Your task to perform on an android device: find snoozed emails in the gmail app Image 0: 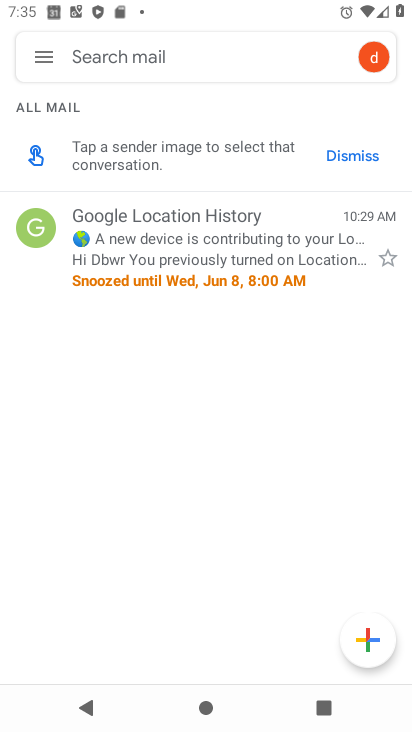
Step 0: press home button
Your task to perform on an android device: find snoozed emails in the gmail app Image 1: 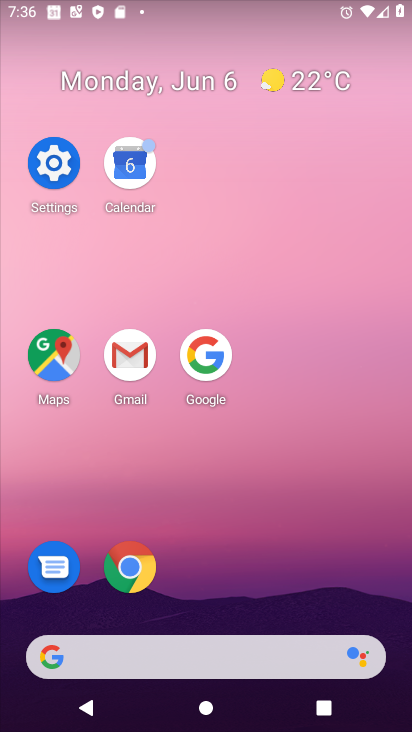
Step 1: click (118, 355)
Your task to perform on an android device: find snoozed emails in the gmail app Image 2: 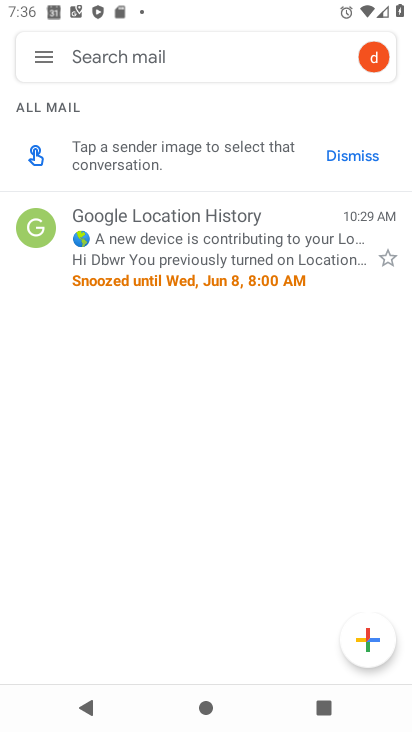
Step 2: click (49, 47)
Your task to perform on an android device: find snoozed emails in the gmail app Image 3: 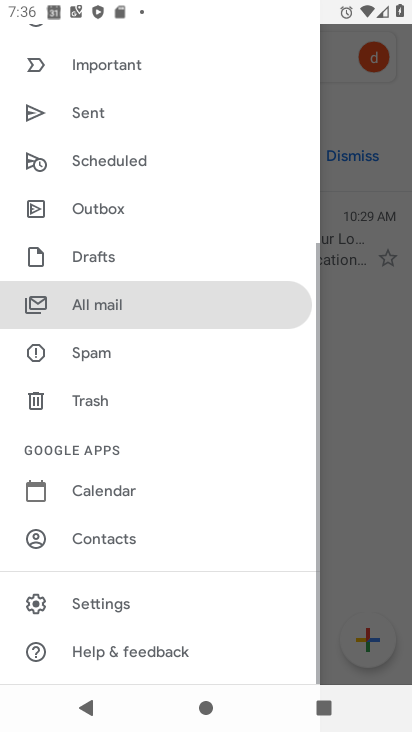
Step 3: drag from (234, 150) to (307, 425)
Your task to perform on an android device: find snoozed emails in the gmail app Image 4: 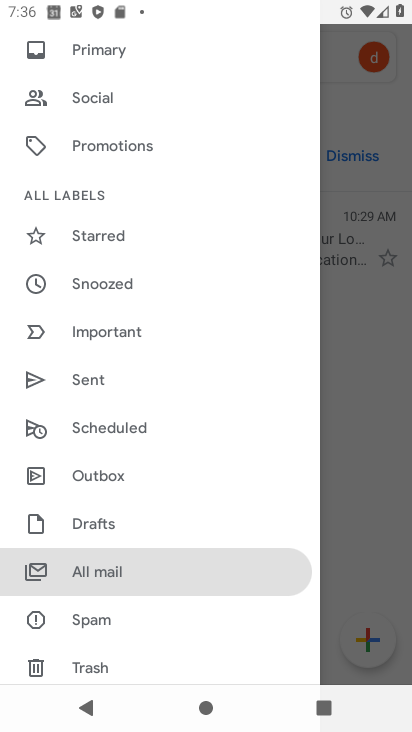
Step 4: click (140, 282)
Your task to perform on an android device: find snoozed emails in the gmail app Image 5: 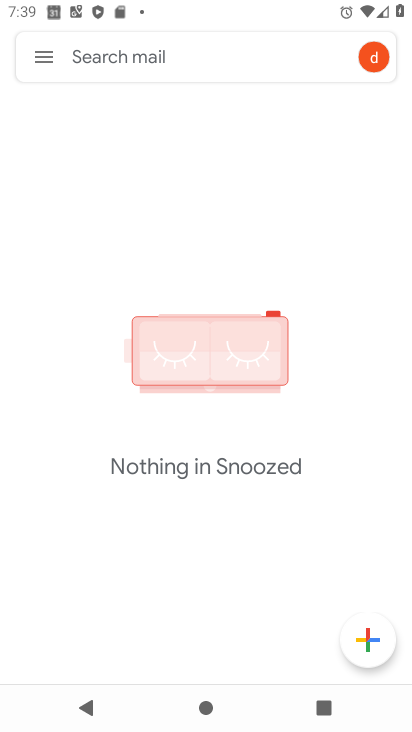
Step 5: task complete